Your task to perform on an android device: find photos in the google photos app Image 0: 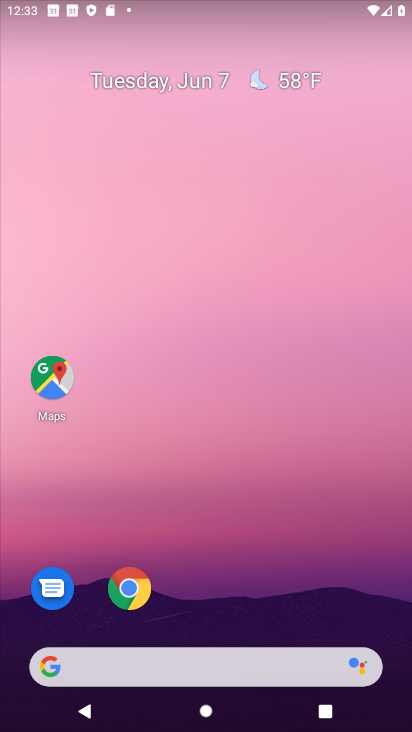
Step 0: drag from (231, 626) to (281, 161)
Your task to perform on an android device: find photos in the google photos app Image 1: 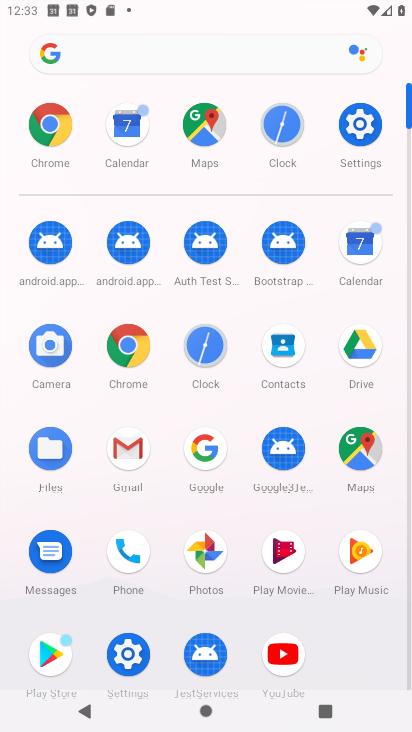
Step 1: click (216, 549)
Your task to perform on an android device: find photos in the google photos app Image 2: 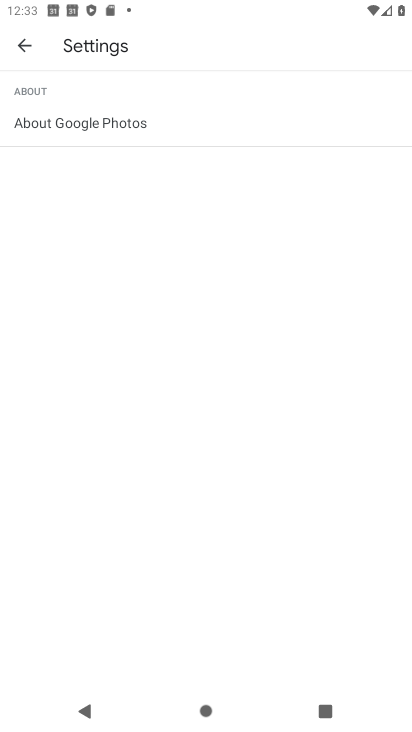
Step 2: task complete